Your task to perform on an android device: Open Google Chrome and click the shortcut for Amazon.com Image 0: 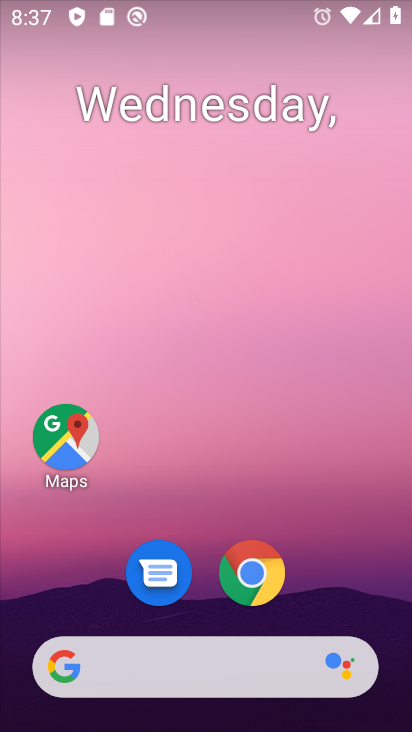
Step 0: drag from (271, 646) to (246, 96)
Your task to perform on an android device: Open Google Chrome and click the shortcut for Amazon.com Image 1: 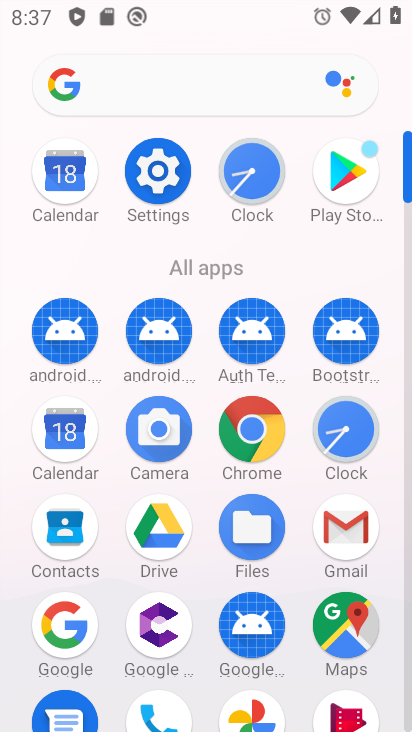
Step 1: click (269, 452)
Your task to perform on an android device: Open Google Chrome and click the shortcut for Amazon.com Image 2: 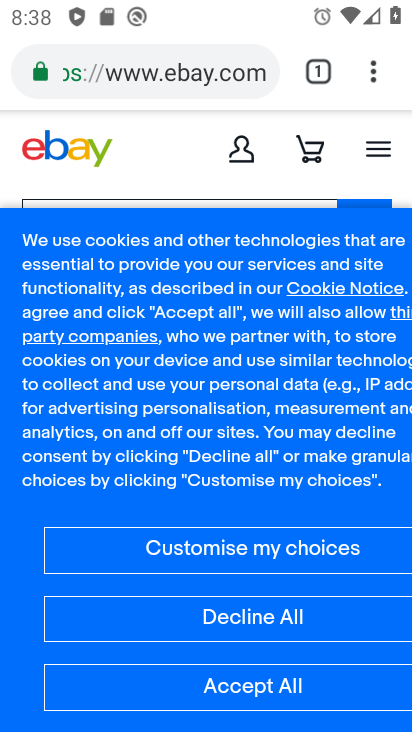
Step 2: drag from (264, 66) to (261, 330)
Your task to perform on an android device: Open Google Chrome and click the shortcut for Amazon.com Image 3: 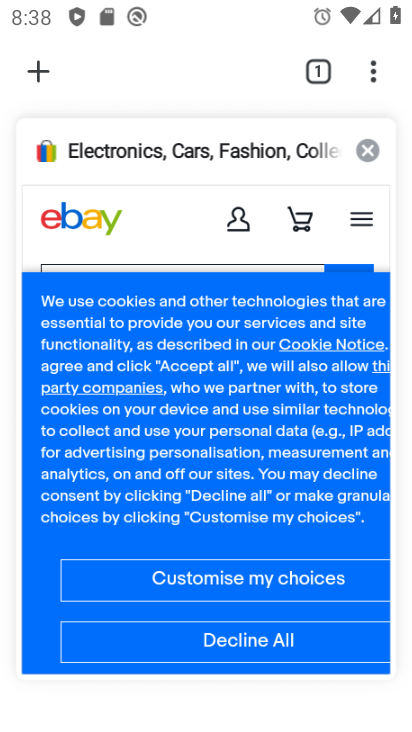
Step 3: click (37, 77)
Your task to perform on an android device: Open Google Chrome and click the shortcut for Amazon.com Image 4: 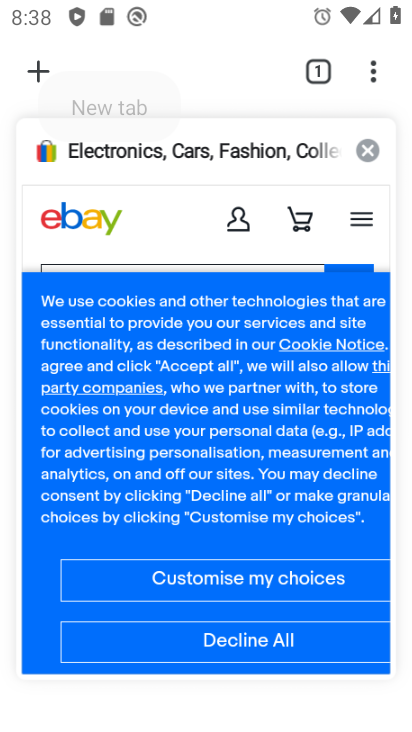
Step 4: click (56, 65)
Your task to perform on an android device: Open Google Chrome and click the shortcut for Amazon.com Image 5: 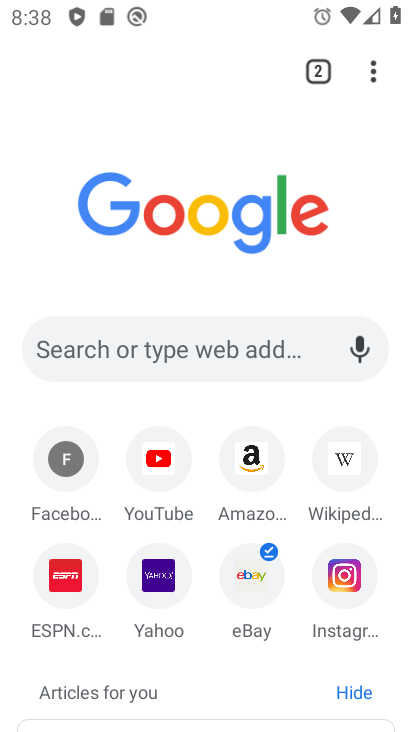
Step 5: click (254, 472)
Your task to perform on an android device: Open Google Chrome and click the shortcut for Amazon.com Image 6: 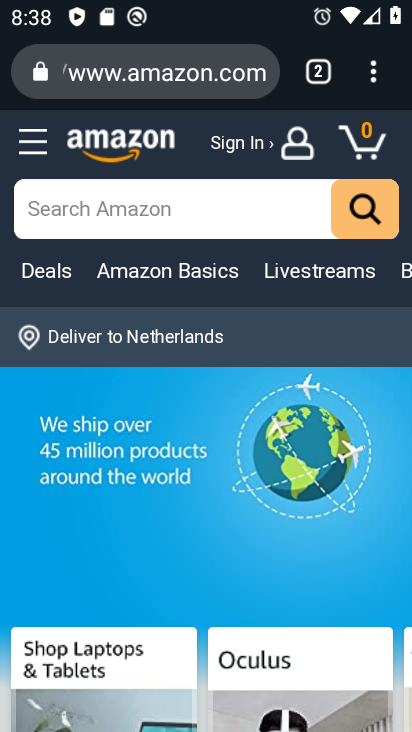
Step 6: task complete